Your task to perform on an android device: Open Chrome and go to settings Image 0: 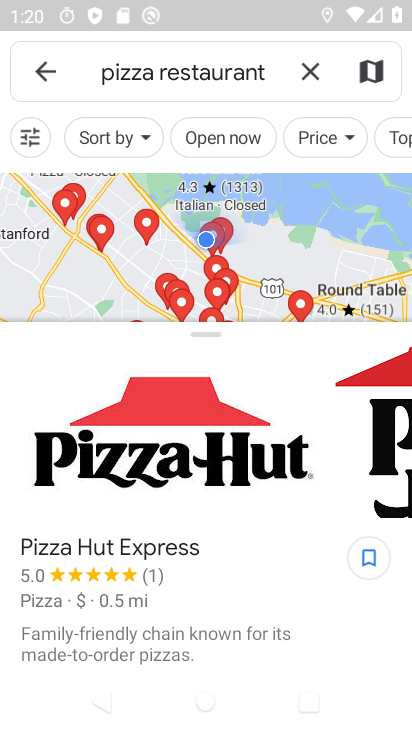
Step 0: press home button
Your task to perform on an android device: Open Chrome and go to settings Image 1: 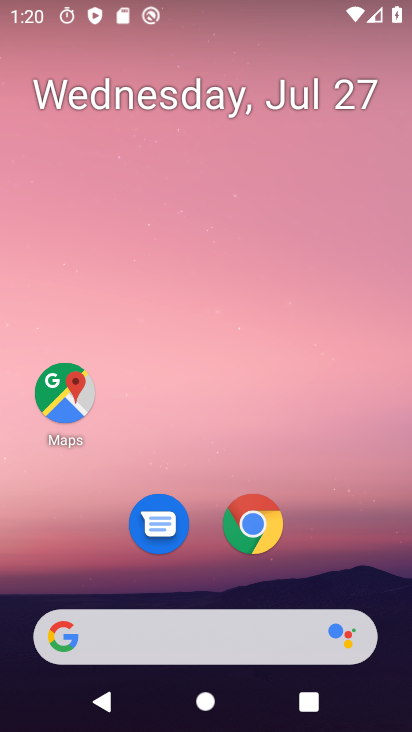
Step 1: click (264, 519)
Your task to perform on an android device: Open Chrome and go to settings Image 2: 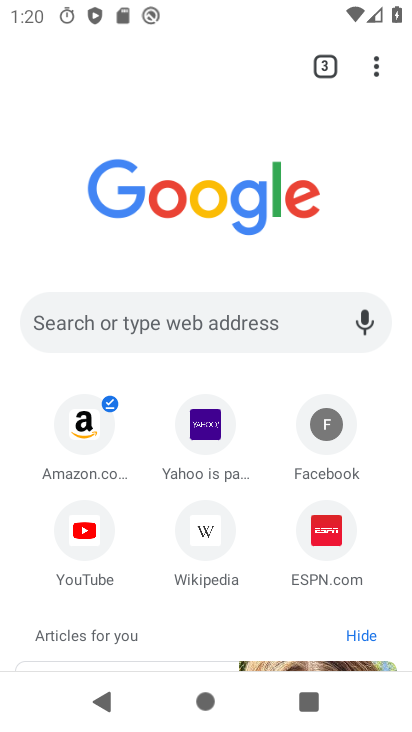
Step 2: click (375, 63)
Your task to perform on an android device: Open Chrome and go to settings Image 3: 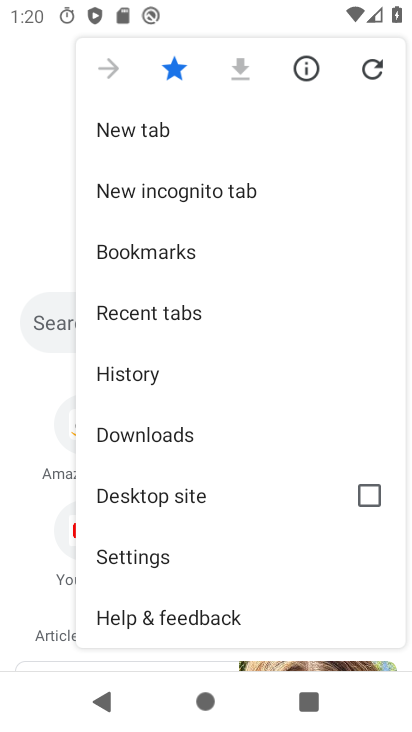
Step 3: click (159, 562)
Your task to perform on an android device: Open Chrome and go to settings Image 4: 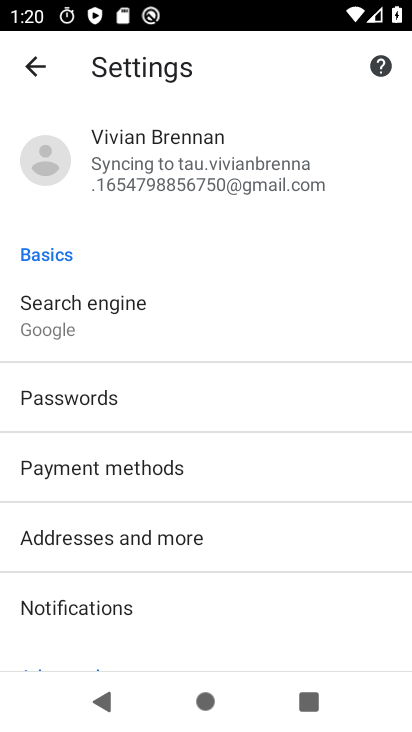
Step 4: task complete